Your task to perform on an android device: allow cookies in the chrome app Image 0: 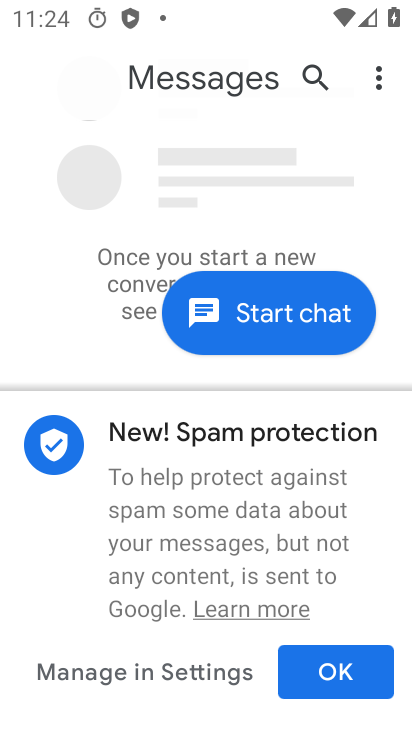
Step 0: press back button
Your task to perform on an android device: allow cookies in the chrome app Image 1: 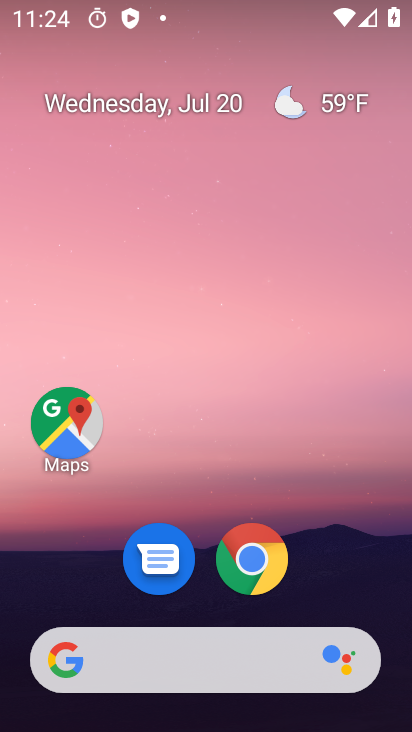
Step 1: click (261, 556)
Your task to perform on an android device: allow cookies in the chrome app Image 2: 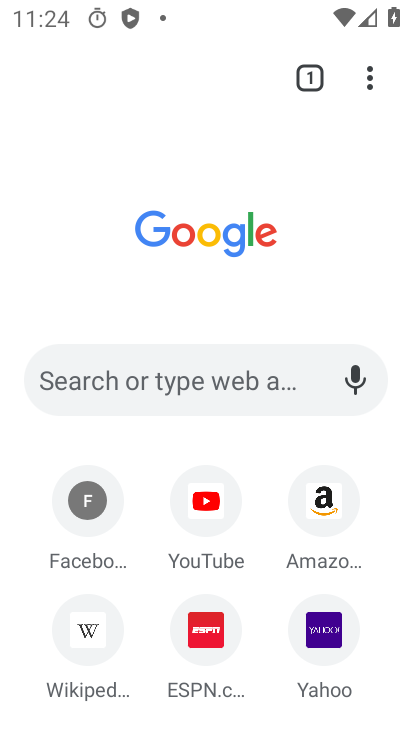
Step 2: drag from (372, 81) to (143, 603)
Your task to perform on an android device: allow cookies in the chrome app Image 3: 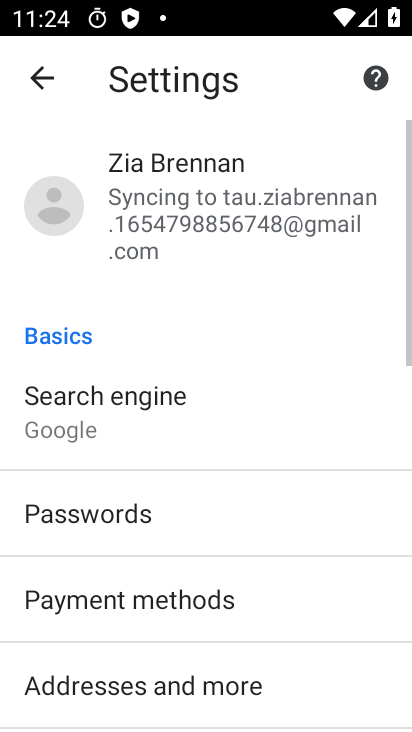
Step 3: drag from (162, 643) to (319, 27)
Your task to perform on an android device: allow cookies in the chrome app Image 4: 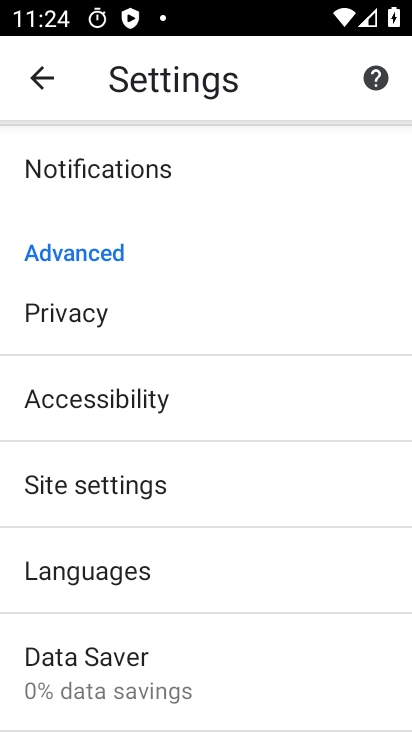
Step 4: click (130, 494)
Your task to perform on an android device: allow cookies in the chrome app Image 5: 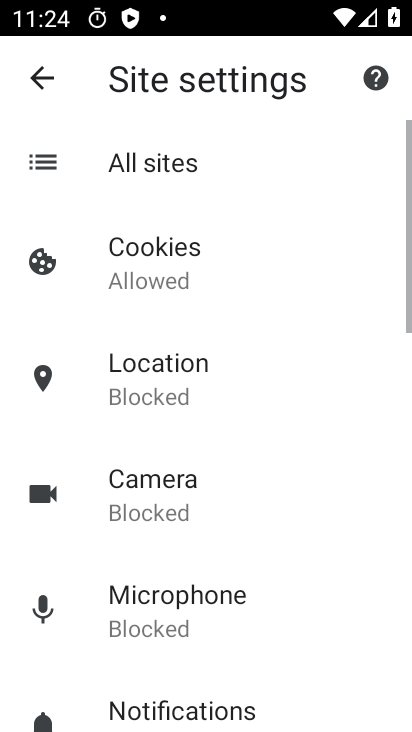
Step 5: click (189, 233)
Your task to perform on an android device: allow cookies in the chrome app Image 6: 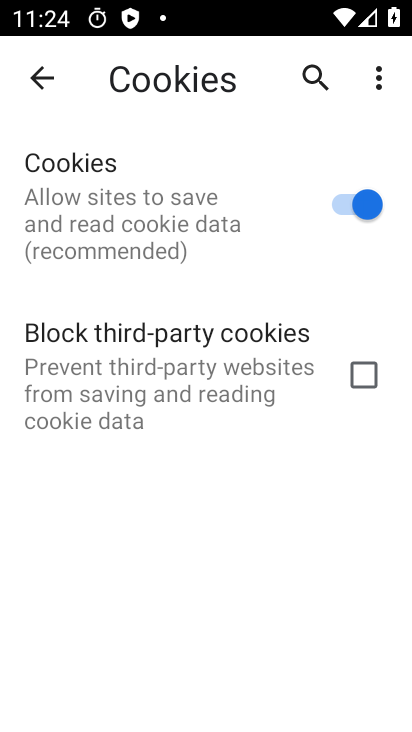
Step 6: task complete